Your task to perform on an android device: toggle sleep mode Image 0: 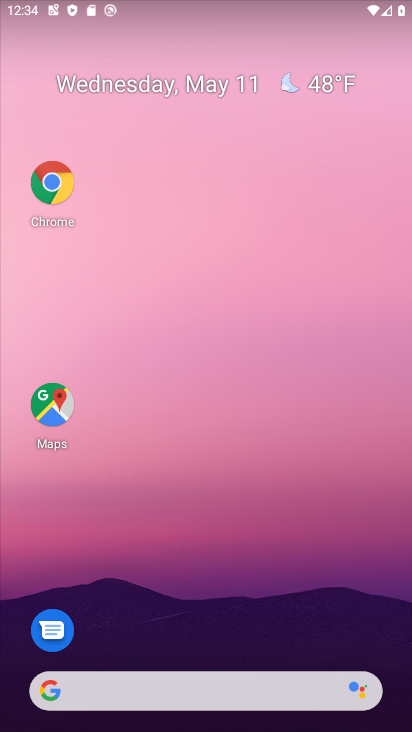
Step 0: drag from (199, 659) to (267, 6)
Your task to perform on an android device: toggle sleep mode Image 1: 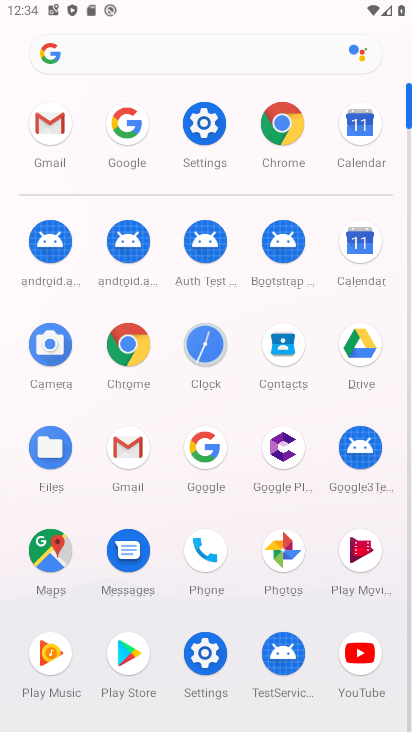
Step 1: click (197, 135)
Your task to perform on an android device: toggle sleep mode Image 2: 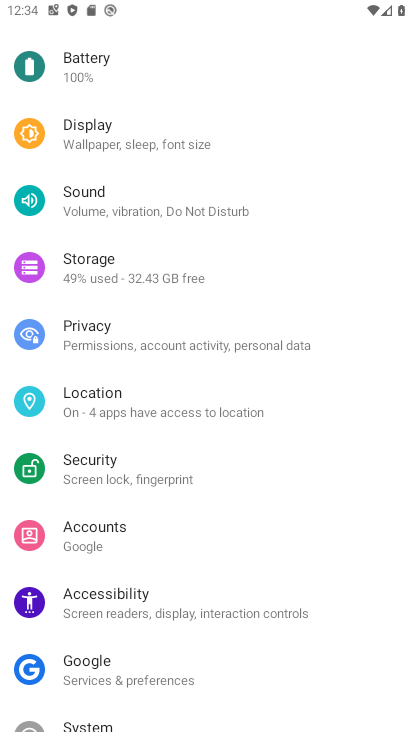
Step 2: click (70, 135)
Your task to perform on an android device: toggle sleep mode Image 3: 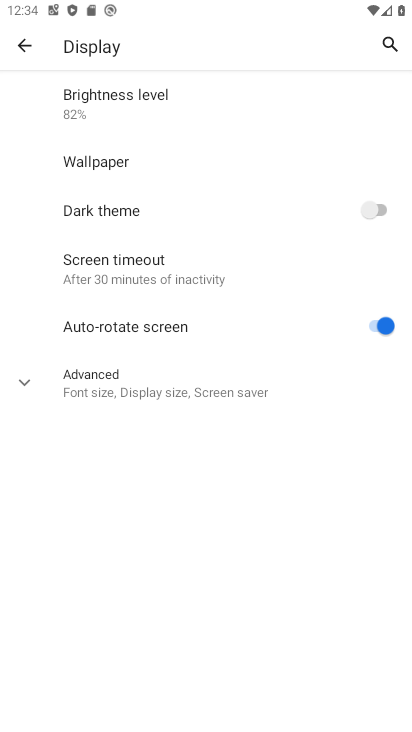
Step 3: task complete